Your task to perform on an android device: What is the recent news? Image 0: 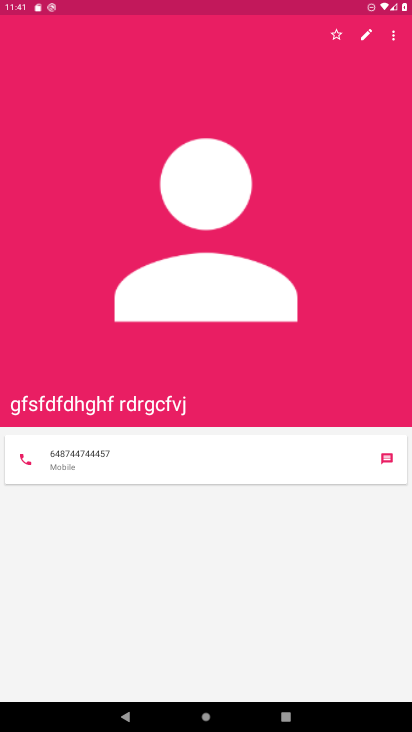
Step 0: press home button
Your task to perform on an android device: What is the recent news? Image 1: 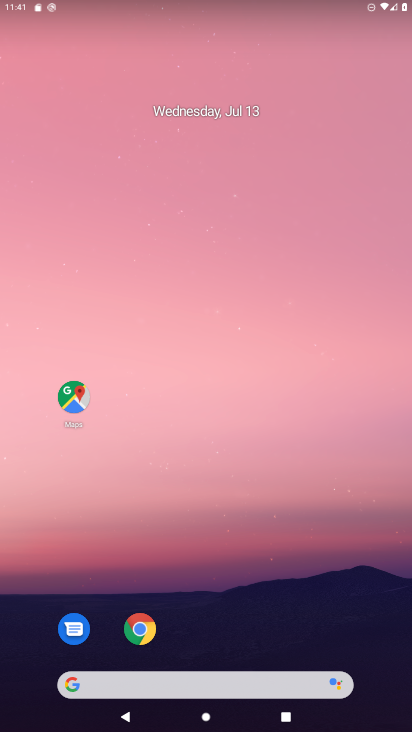
Step 1: task complete